Your task to perform on an android device: Search for pizza restaurants on Maps Image 0: 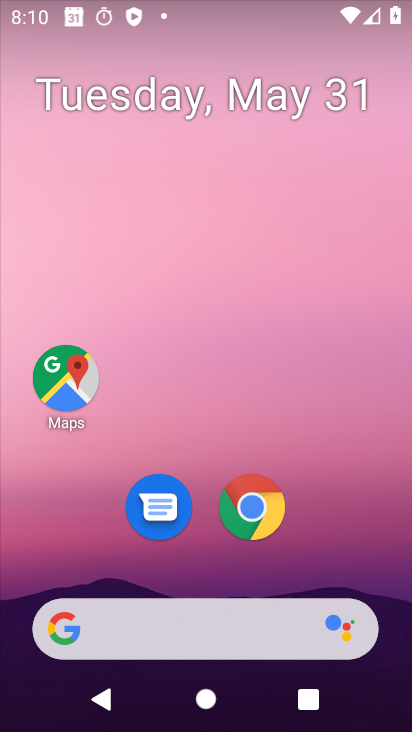
Step 0: click (61, 381)
Your task to perform on an android device: Search for pizza restaurants on Maps Image 1: 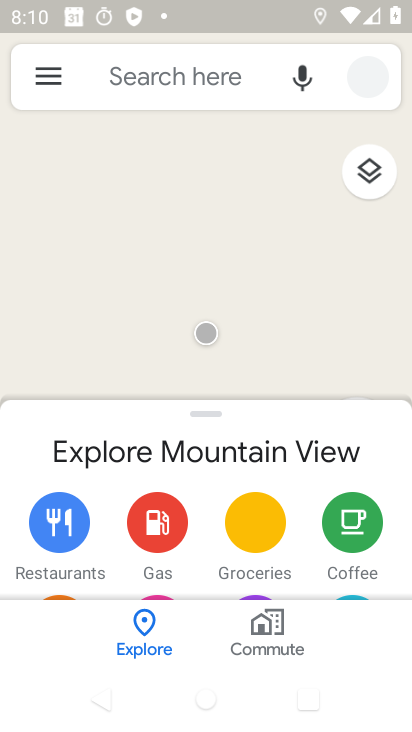
Step 1: click (126, 83)
Your task to perform on an android device: Search for pizza restaurants on Maps Image 2: 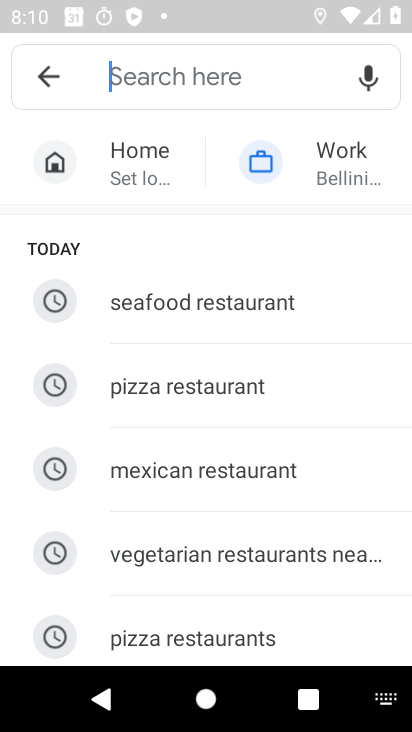
Step 2: type "pizza restaurants "
Your task to perform on an android device: Search for pizza restaurants on Maps Image 3: 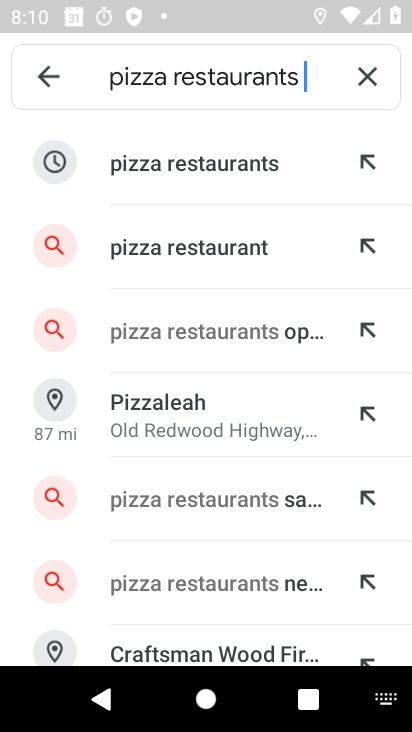
Step 3: click (172, 245)
Your task to perform on an android device: Search for pizza restaurants on Maps Image 4: 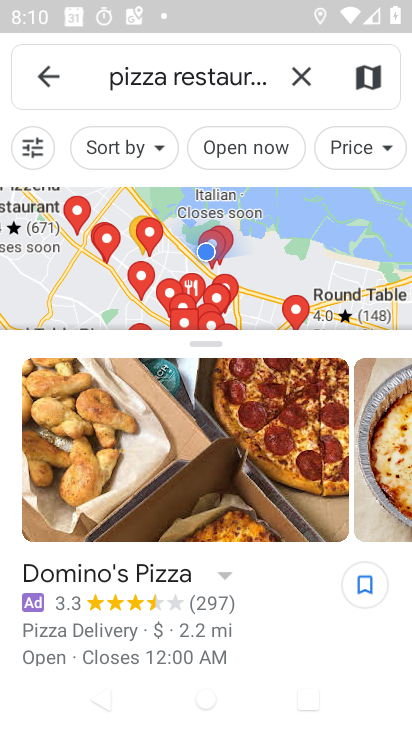
Step 4: task complete